Your task to perform on an android device: toggle wifi Image 0: 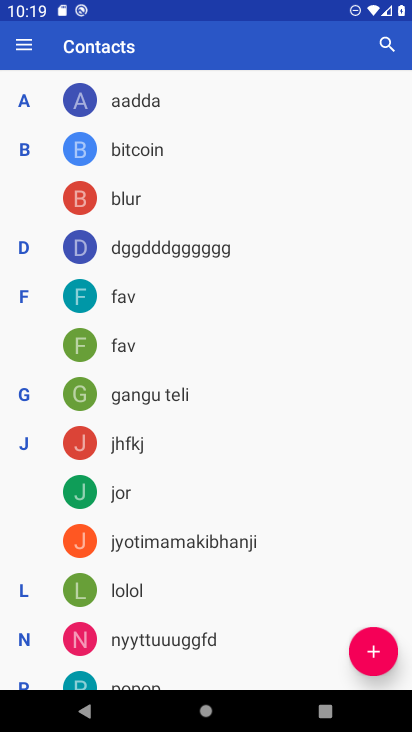
Step 0: press back button
Your task to perform on an android device: toggle wifi Image 1: 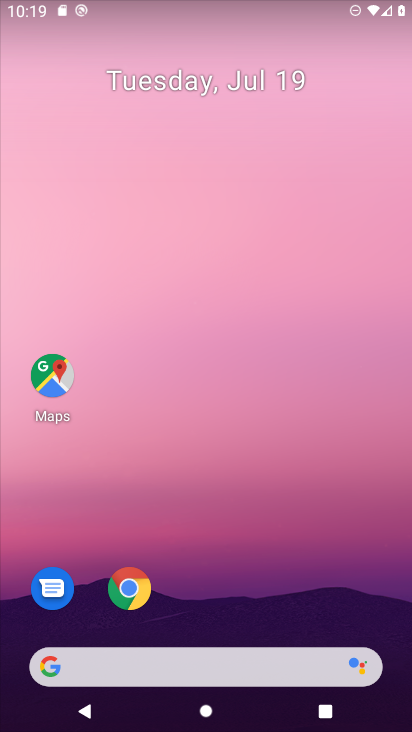
Step 1: drag from (250, 675) to (211, 274)
Your task to perform on an android device: toggle wifi Image 2: 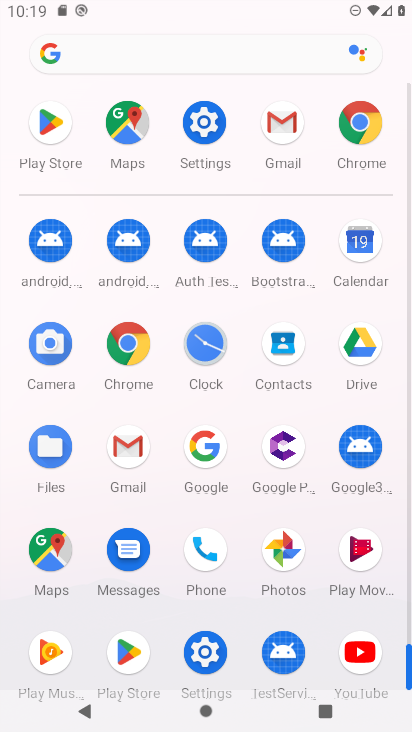
Step 2: click (191, 124)
Your task to perform on an android device: toggle wifi Image 3: 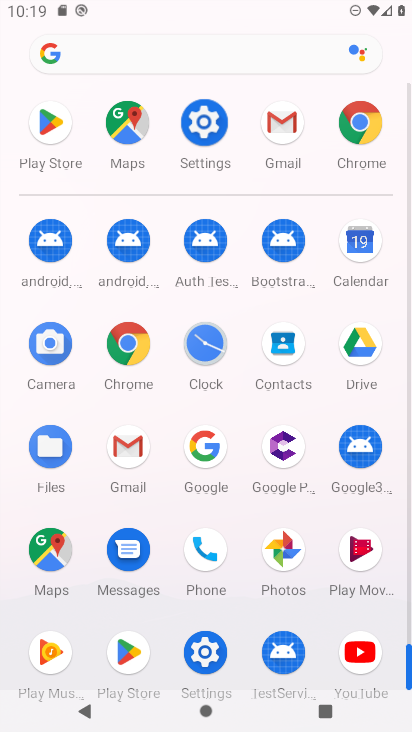
Step 3: click (192, 124)
Your task to perform on an android device: toggle wifi Image 4: 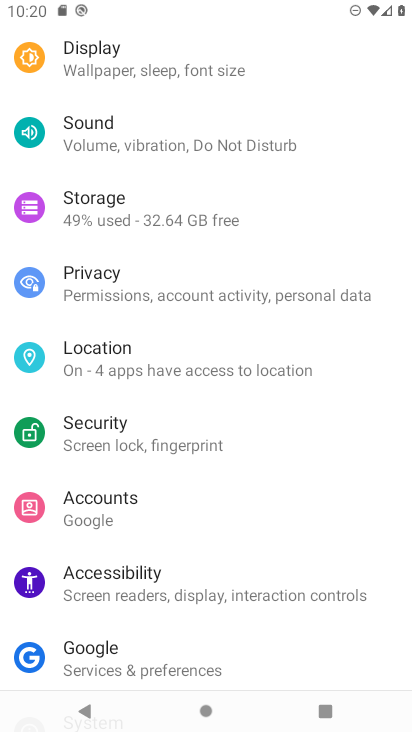
Step 4: drag from (151, 139) to (130, 435)
Your task to perform on an android device: toggle wifi Image 5: 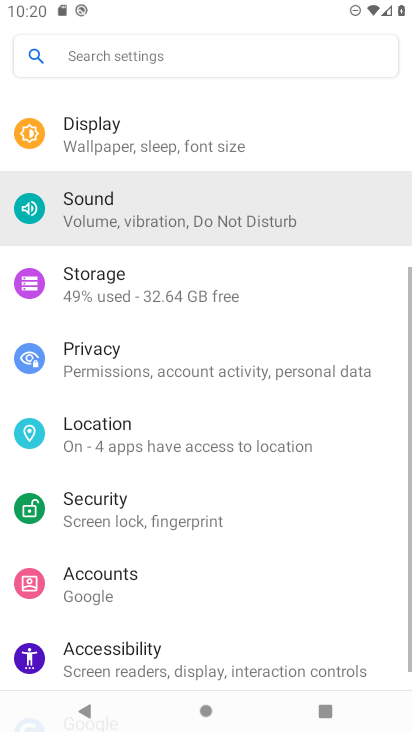
Step 5: drag from (153, 214) to (203, 452)
Your task to perform on an android device: toggle wifi Image 6: 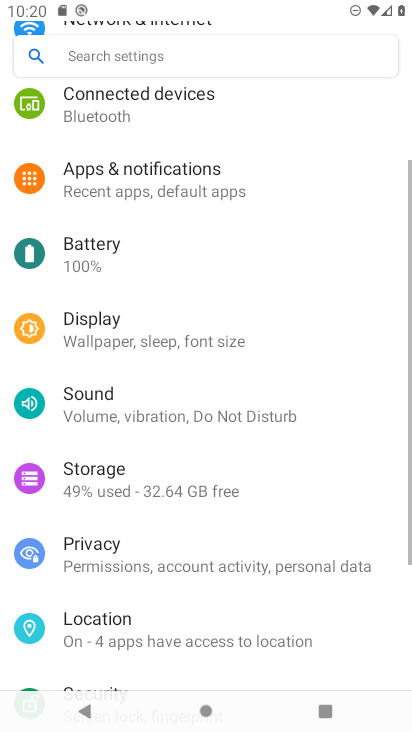
Step 6: drag from (202, 200) to (203, 500)
Your task to perform on an android device: toggle wifi Image 7: 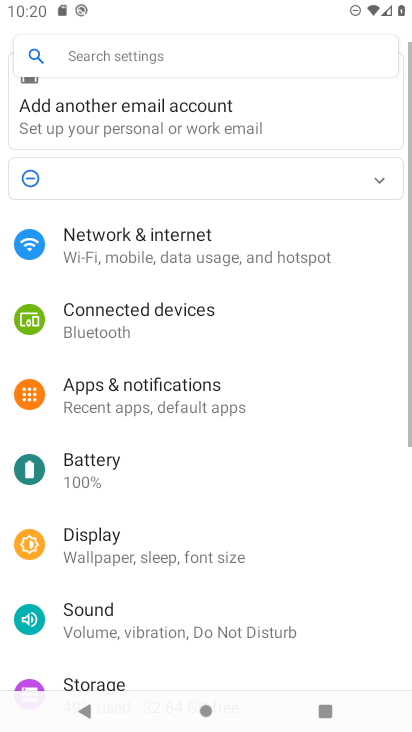
Step 7: drag from (220, 264) to (230, 534)
Your task to perform on an android device: toggle wifi Image 8: 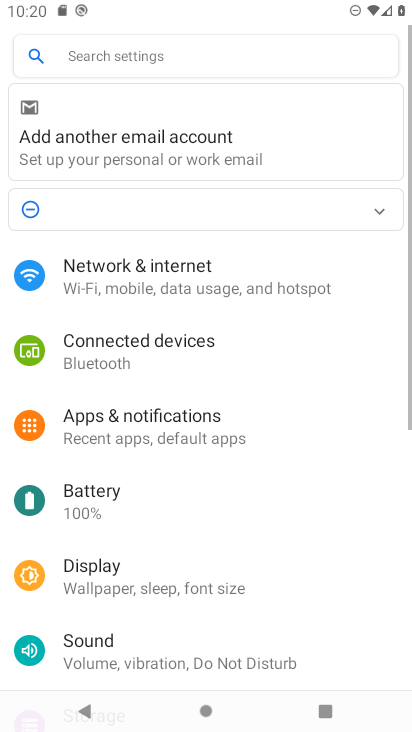
Step 8: drag from (220, 143) to (205, 493)
Your task to perform on an android device: toggle wifi Image 9: 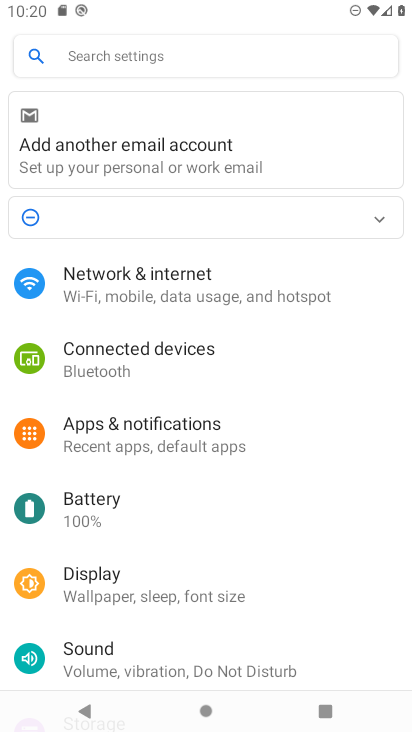
Step 9: click (143, 245)
Your task to perform on an android device: toggle wifi Image 10: 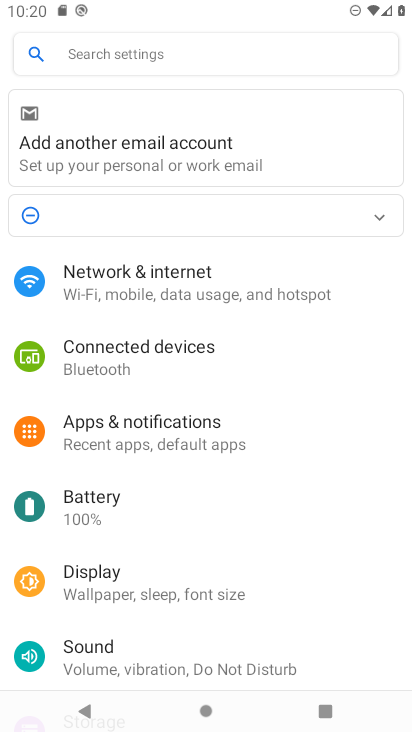
Step 10: click (145, 274)
Your task to perform on an android device: toggle wifi Image 11: 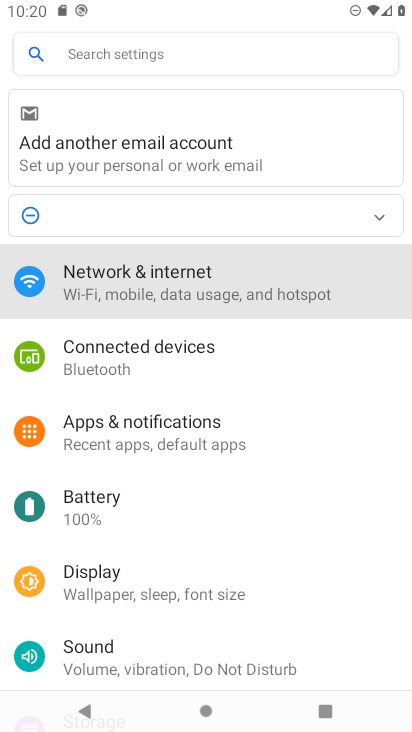
Step 11: click (149, 286)
Your task to perform on an android device: toggle wifi Image 12: 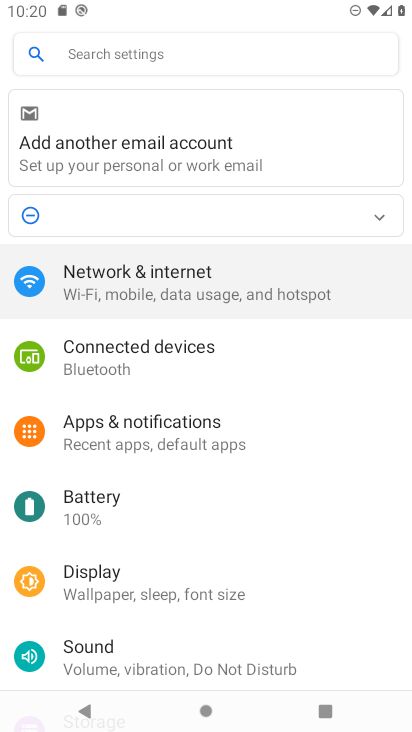
Step 12: click (149, 286)
Your task to perform on an android device: toggle wifi Image 13: 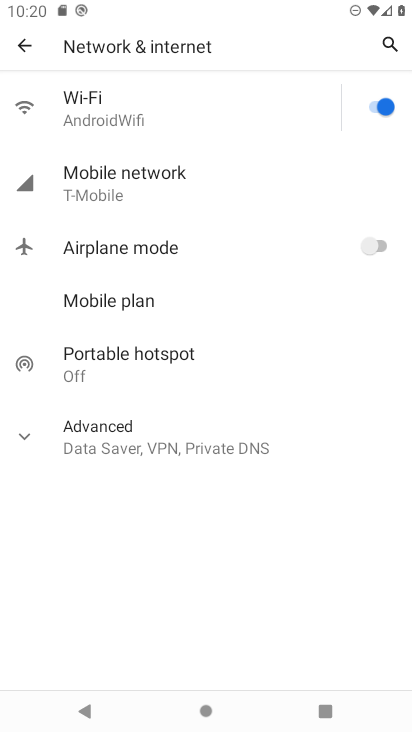
Step 13: click (376, 107)
Your task to perform on an android device: toggle wifi Image 14: 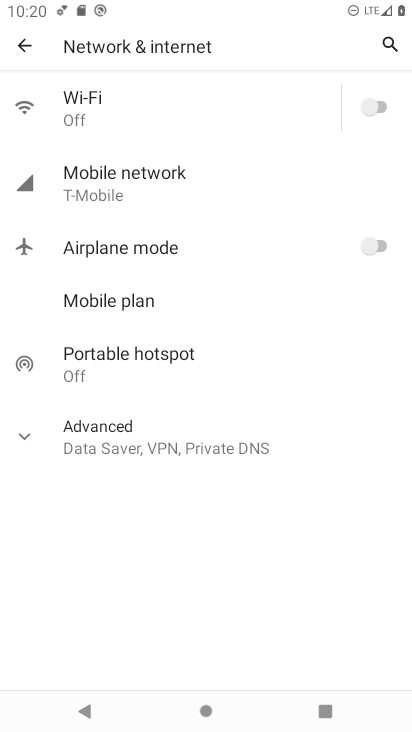
Step 14: task complete